Your task to perform on an android device: Open Youtube and go to "Your channel" Image 0: 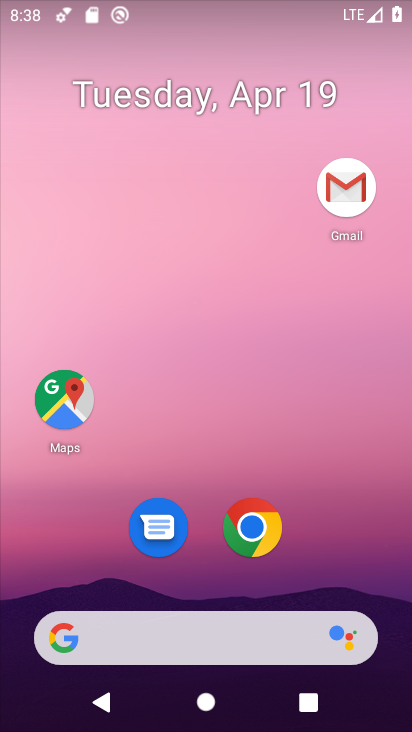
Step 0: drag from (362, 452) to (300, 1)
Your task to perform on an android device: Open Youtube and go to "Your channel" Image 1: 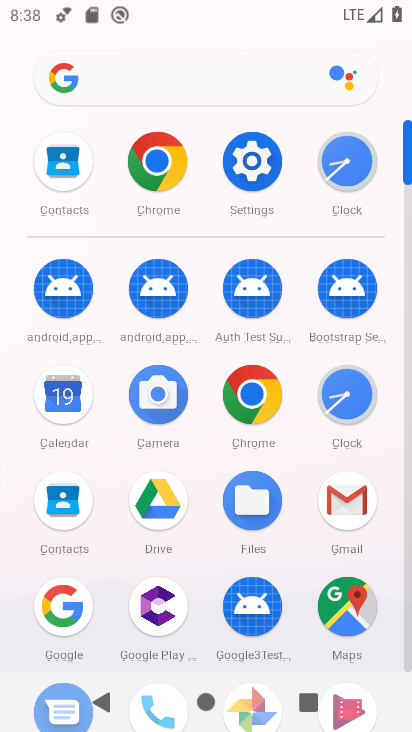
Step 1: drag from (291, 547) to (282, 58)
Your task to perform on an android device: Open Youtube and go to "Your channel" Image 2: 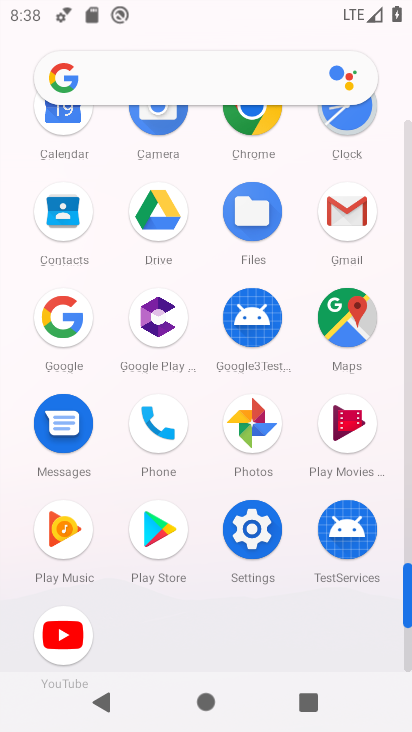
Step 2: click (77, 620)
Your task to perform on an android device: Open Youtube and go to "Your channel" Image 3: 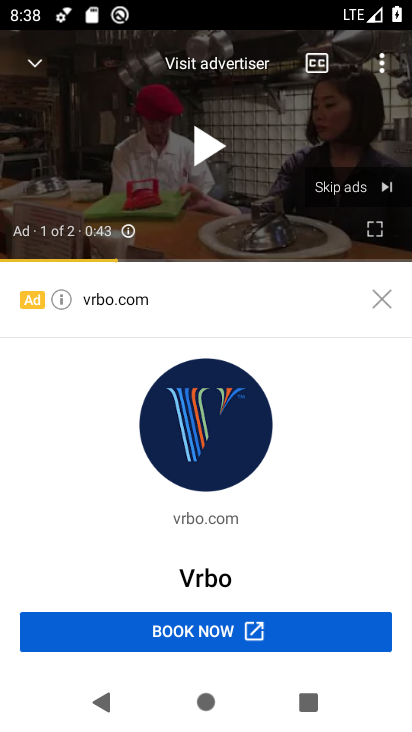
Step 3: drag from (279, 183) to (287, 695)
Your task to perform on an android device: Open Youtube and go to "Your channel" Image 4: 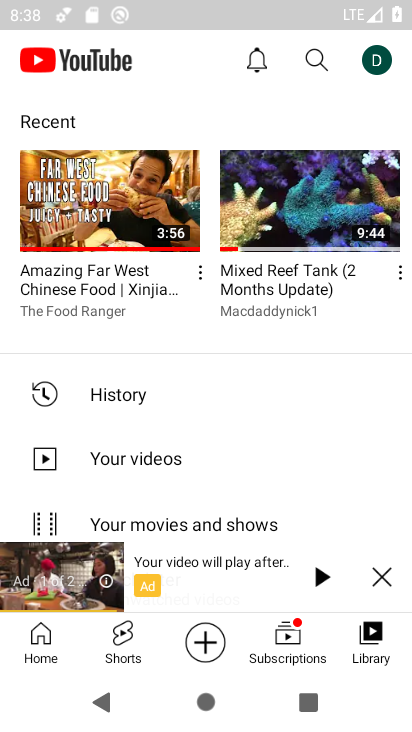
Step 4: click (384, 569)
Your task to perform on an android device: Open Youtube and go to "Your channel" Image 5: 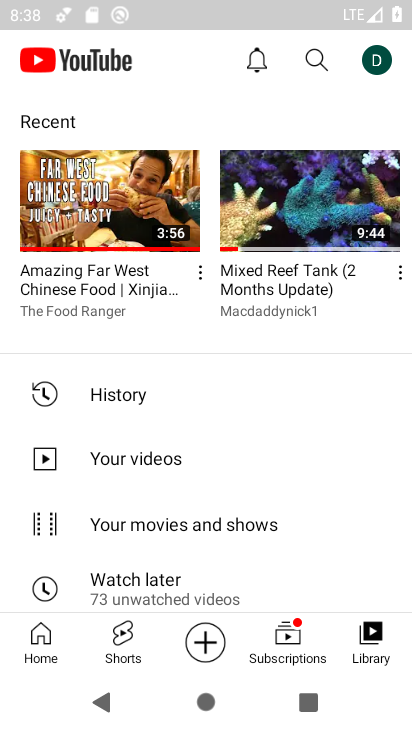
Step 5: click (381, 56)
Your task to perform on an android device: Open Youtube and go to "Your channel" Image 6: 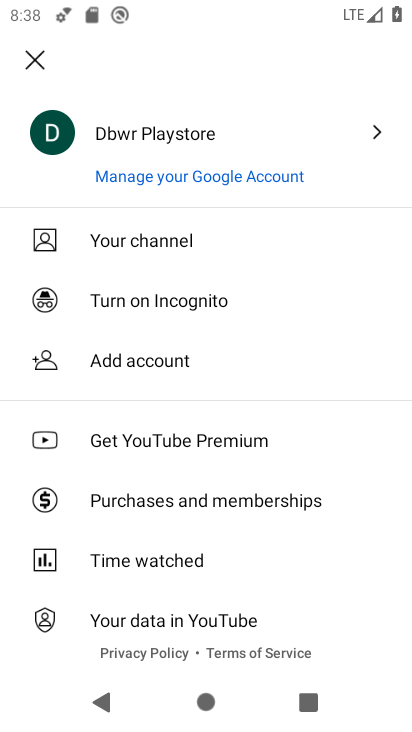
Step 6: click (170, 238)
Your task to perform on an android device: Open Youtube and go to "Your channel" Image 7: 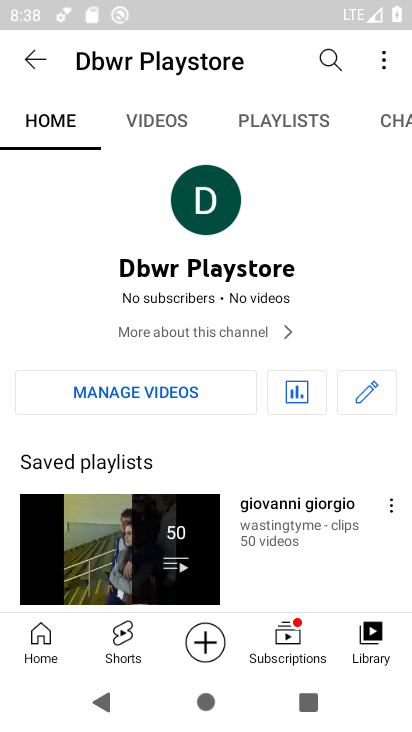
Step 7: task complete